Your task to perform on an android device: change the clock display to show seconds Image 0: 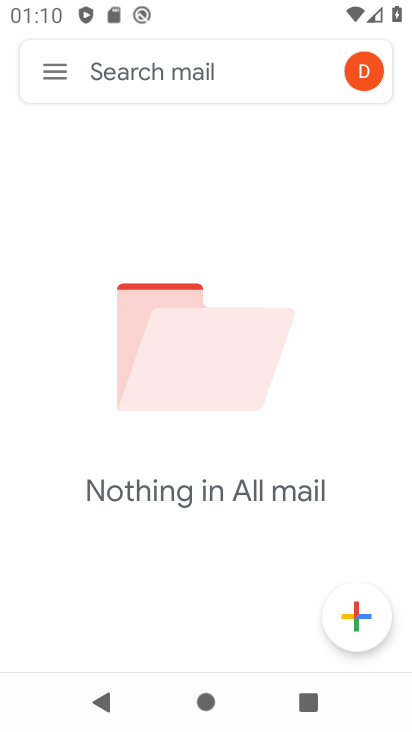
Step 0: press home button
Your task to perform on an android device: change the clock display to show seconds Image 1: 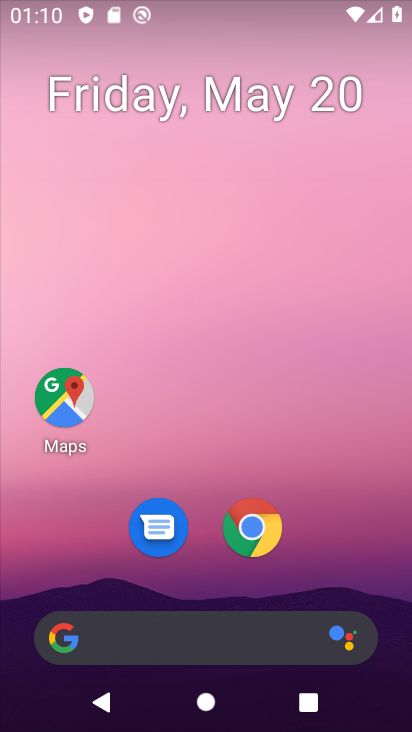
Step 1: drag from (212, 576) to (241, 21)
Your task to perform on an android device: change the clock display to show seconds Image 2: 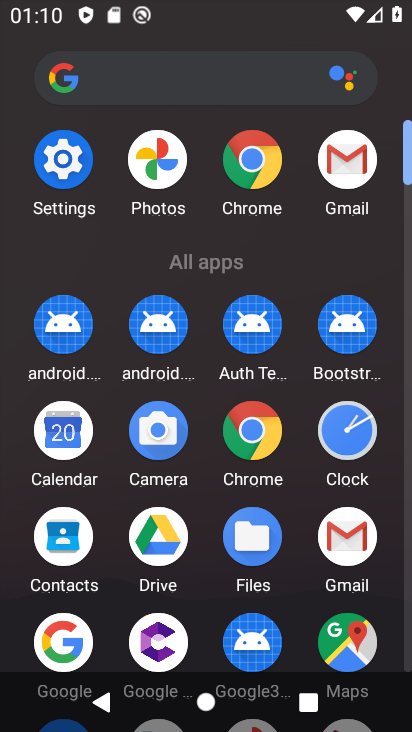
Step 2: click (350, 418)
Your task to perform on an android device: change the clock display to show seconds Image 3: 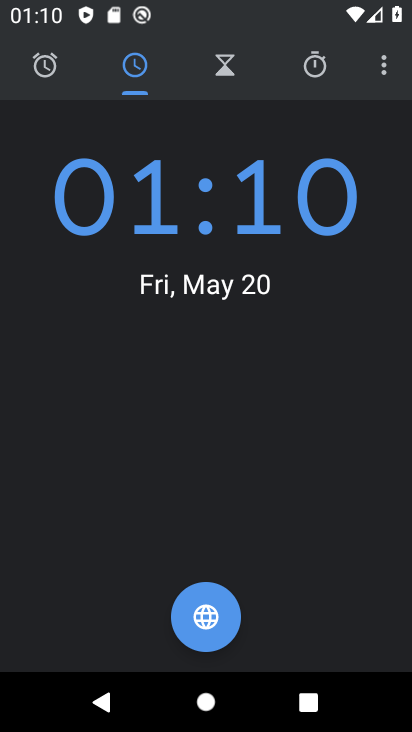
Step 3: click (382, 62)
Your task to perform on an android device: change the clock display to show seconds Image 4: 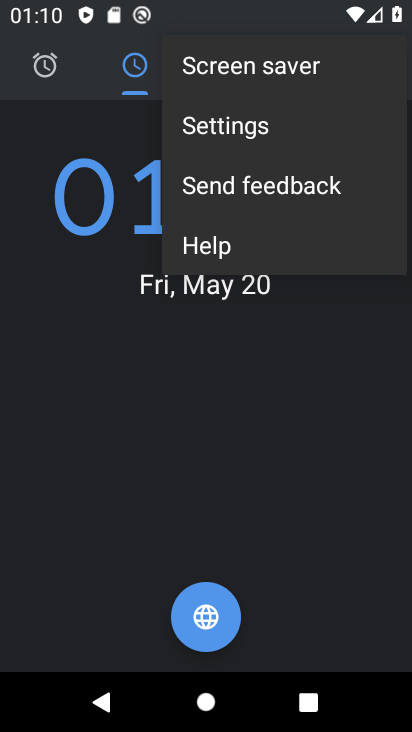
Step 4: click (276, 135)
Your task to perform on an android device: change the clock display to show seconds Image 5: 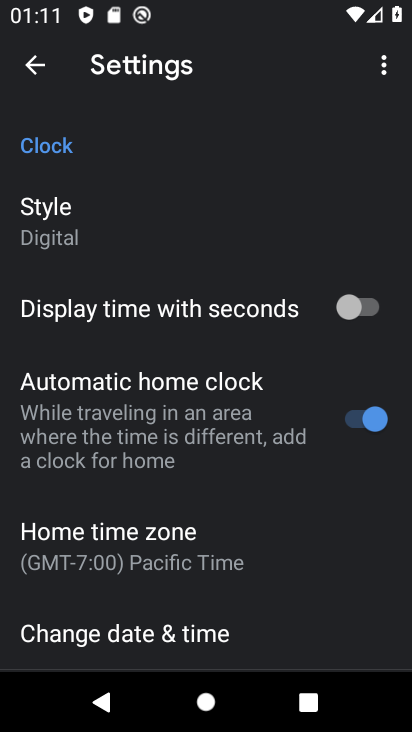
Step 5: click (361, 297)
Your task to perform on an android device: change the clock display to show seconds Image 6: 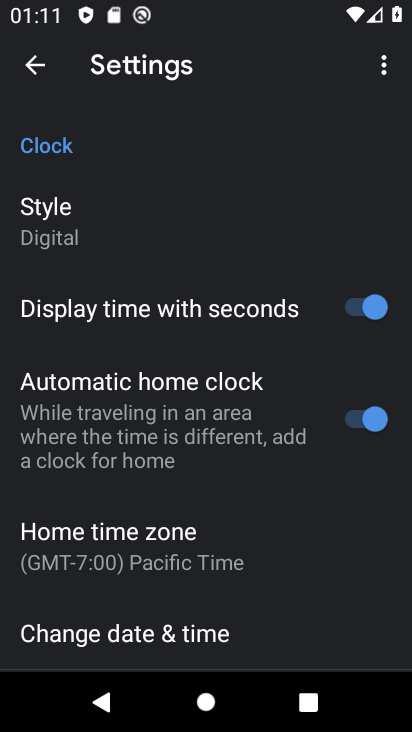
Step 6: task complete